Your task to perform on an android device: What is the recent news? Image 0: 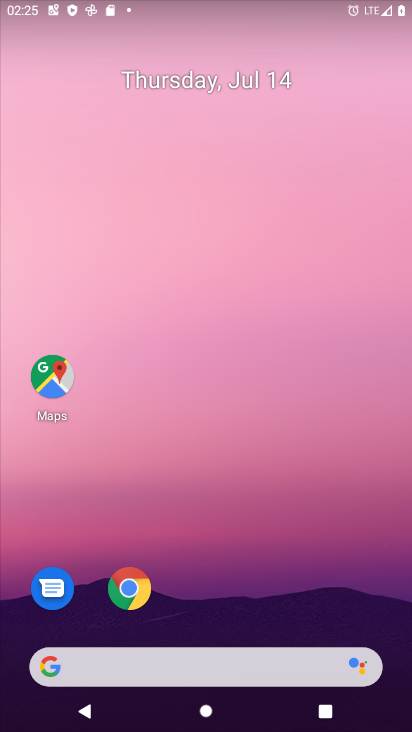
Step 0: click (230, 688)
Your task to perform on an android device: What is the recent news? Image 1: 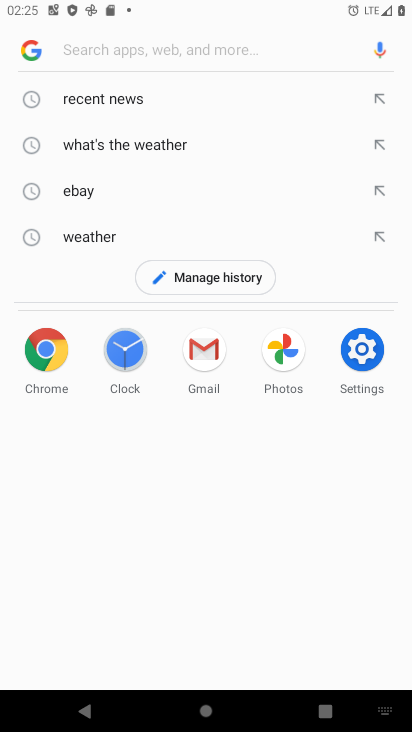
Step 1: click (213, 91)
Your task to perform on an android device: What is the recent news? Image 2: 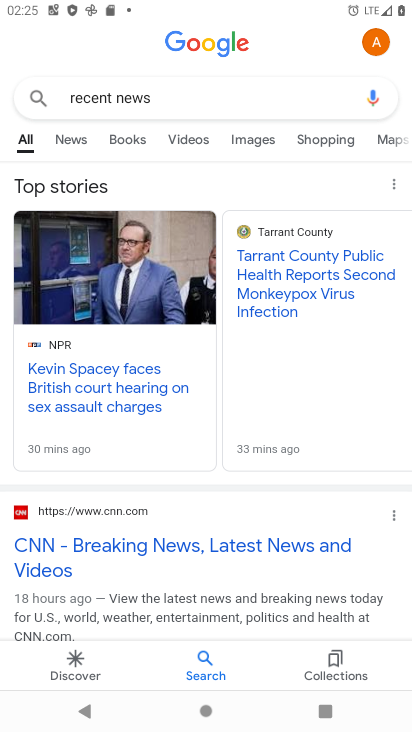
Step 2: task complete